Your task to perform on an android device: Open calendar and show me the third week of next month Image 0: 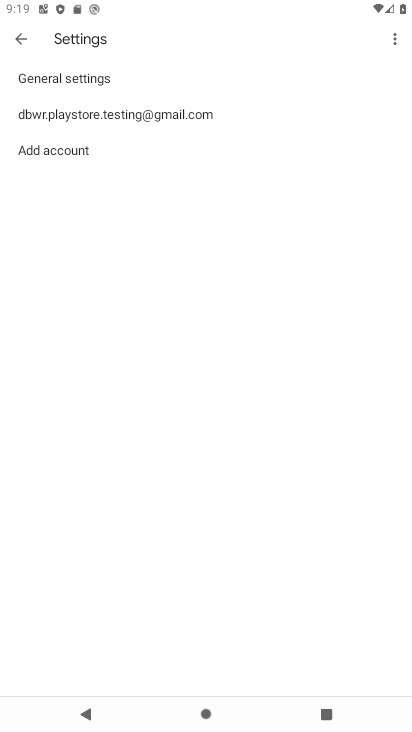
Step 0: press home button
Your task to perform on an android device: Open calendar and show me the third week of next month Image 1: 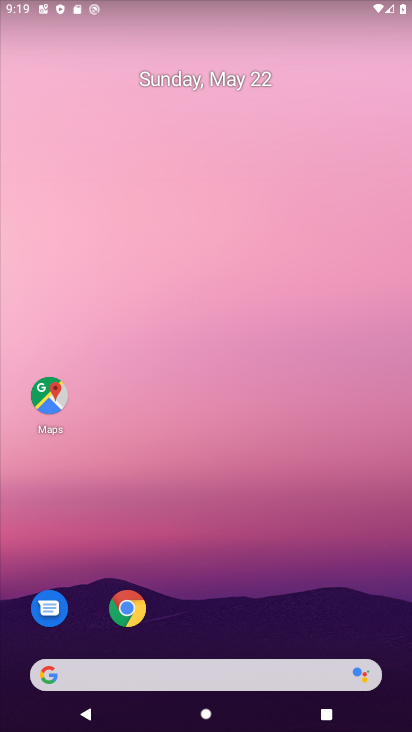
Step 1: drag from (263, 553) to (215, 125)
Your task to perform on an android device: Open calendar and show me the third week of next month Image 2: 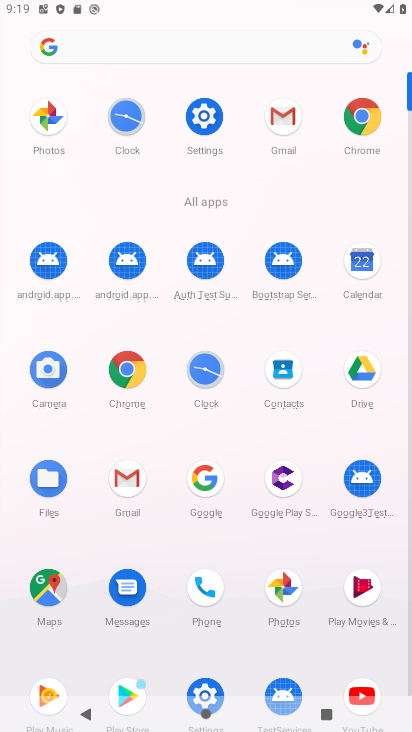
Step 2: click (364, 270)
Your task to perform on an android device: Open calendar and show me the third week of next month Image 3: 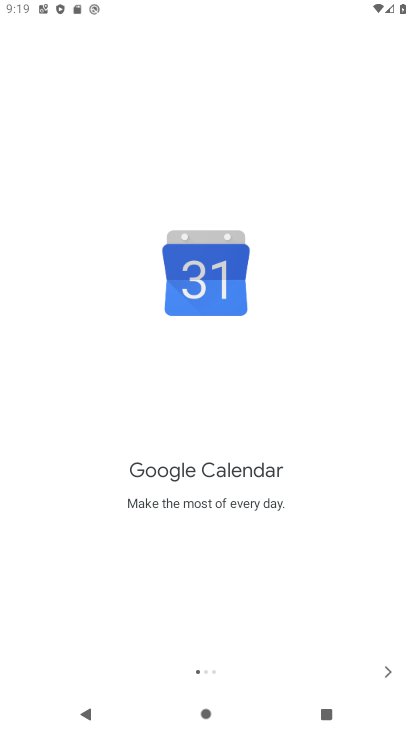
Step 3: click (389, 669)
Your task to perform on an android device: Open calendar and show me the third week of next month Image 4: 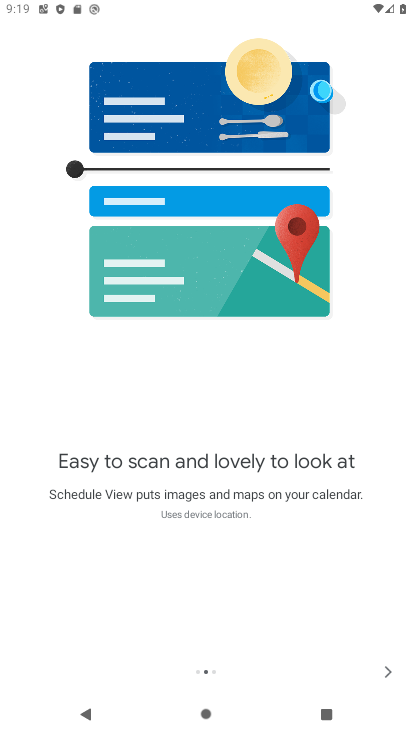
Step 4: click (389, 669)
Your task to perform on an android device: Open calendar and show me the third week of next month Image 5: 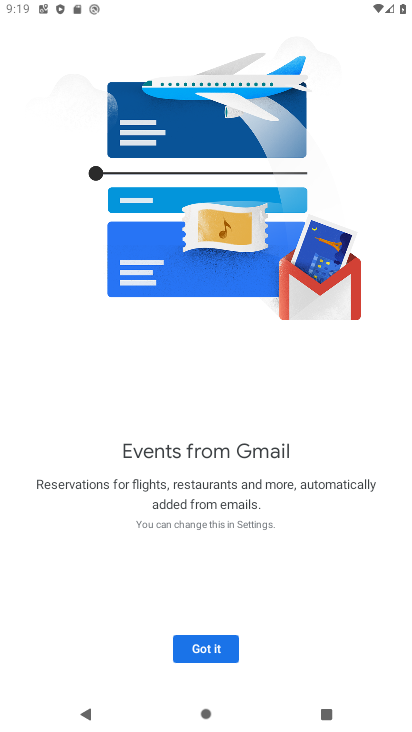
Step 5: click (223, 642)
Your task to perform on an android device: Open calendar and show me the third week of next month Image 6: 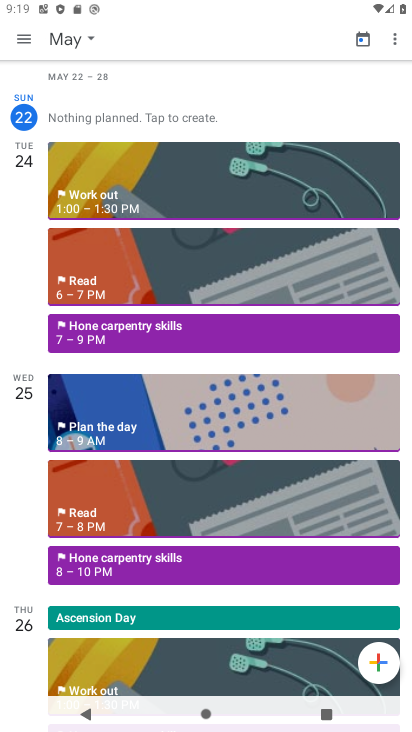
Step 6: click (77, 39)
Your task to perform on an android device: Open calendar and show me the third week of next month Image 7: 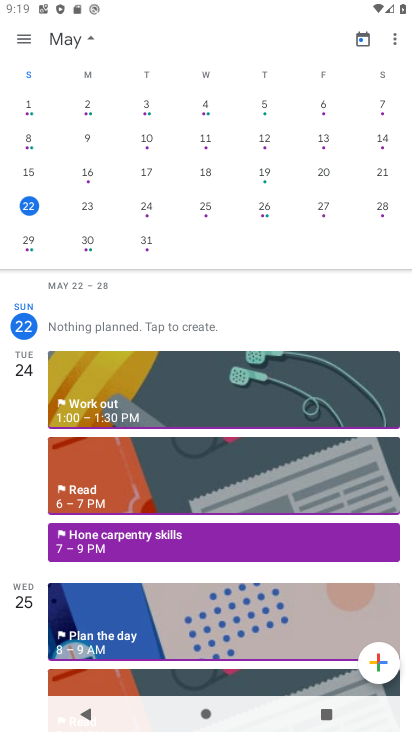
Step 7: drag from (351, 198) to (58, 198)
Your task to perform on an android device: Open calendar and show me the third week of next month Image 8: 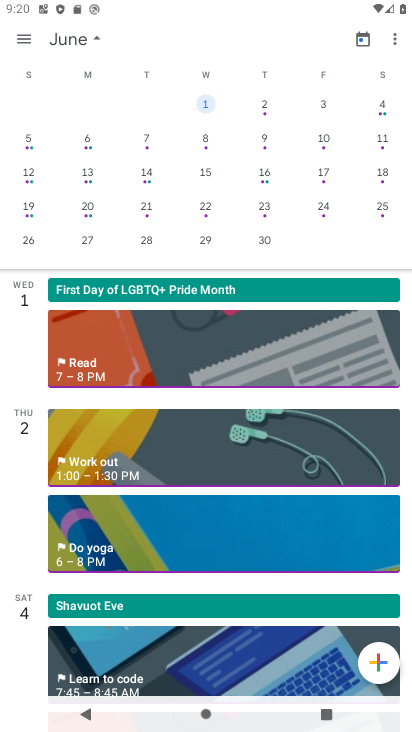
Step 8: click (21, 215)
Your task to perform on an android device: Open calendar and show me the third week of next month Image 9: 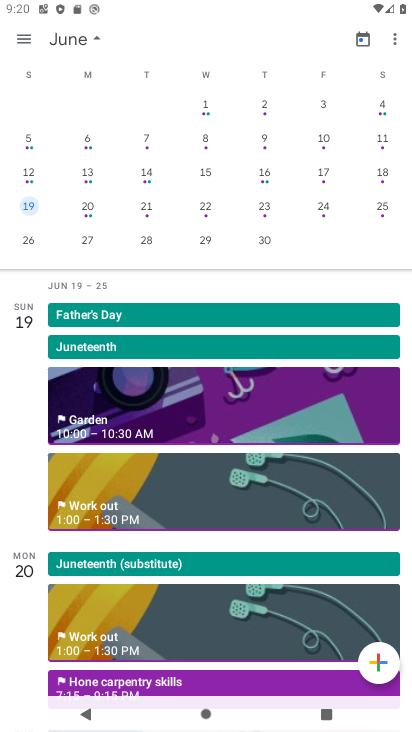
Step 9: click (29, 42)
Your task to perform on an android device: Open calendar and show me the third week of next month Image 10: 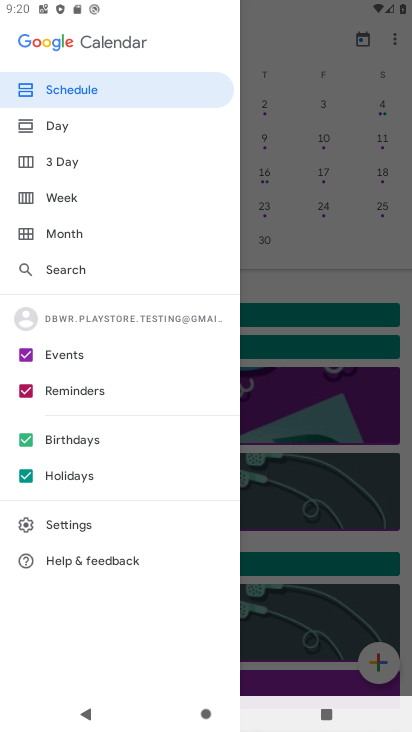
Step 10: click (61, 187)
Your task to perform on an android device: Open calendar and show me the third week of next month Image 11: 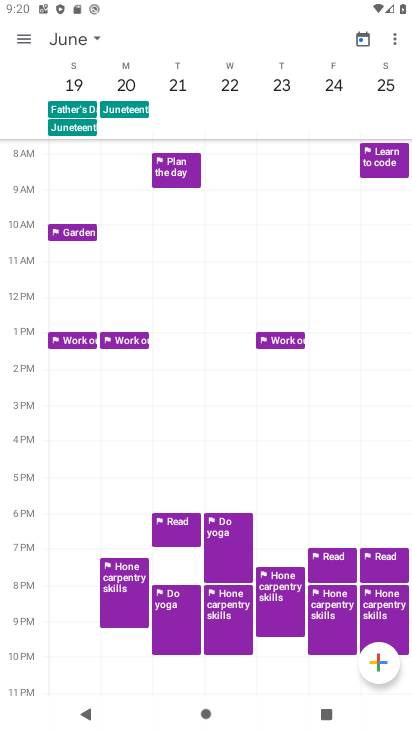
Step 11: task complete